Your task to perform on an android device: Open notification settings Image 0: 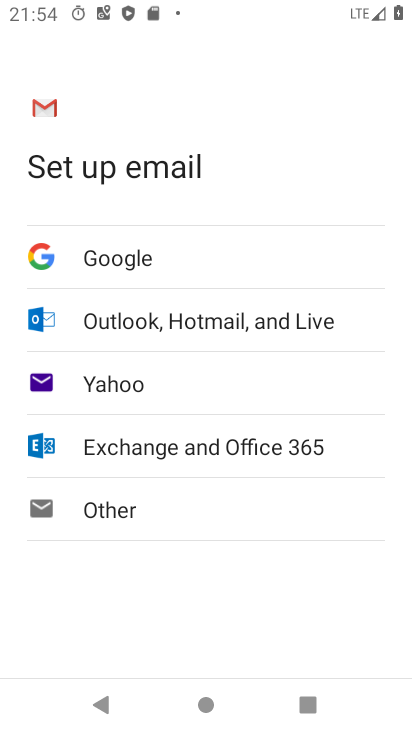
Step 0: press home button
Your task to perform on an android device: Open notification settings Image 1: 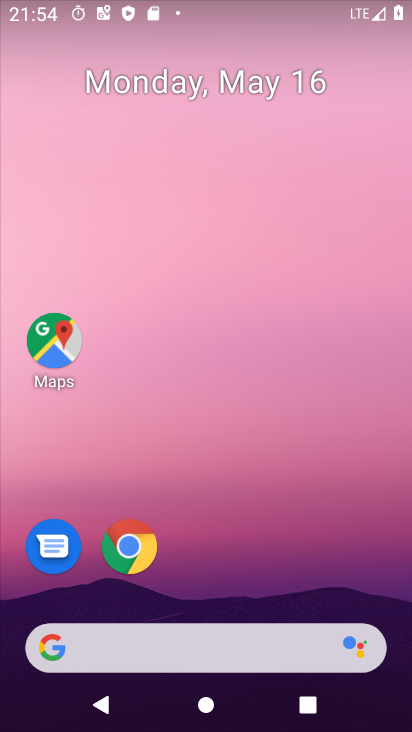
Step 1: drag from (254, 665) to (361, 161)
Your task to perform on an android device: Open notification settings Image 2: 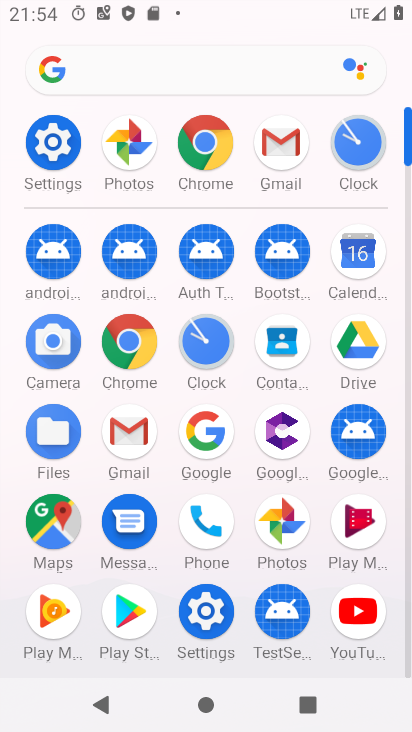
Step 2: click (193, 596)
Your task to perform on an android device: Open notification settings Image 3: 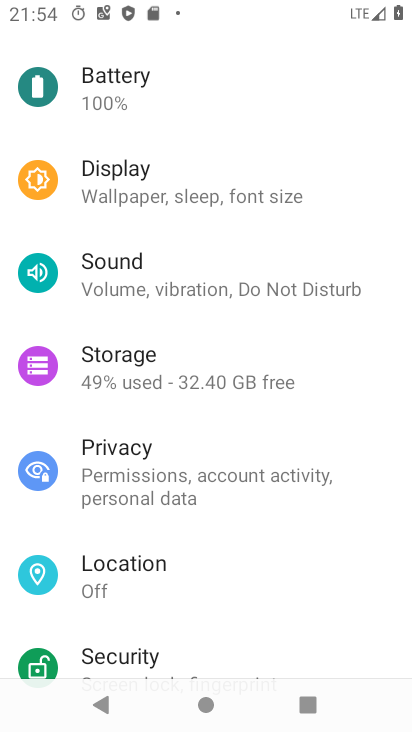
Step 3: drag from (159, 524) to (236, 266)
Your task to perform on an android device: Open notification settings Image 4: 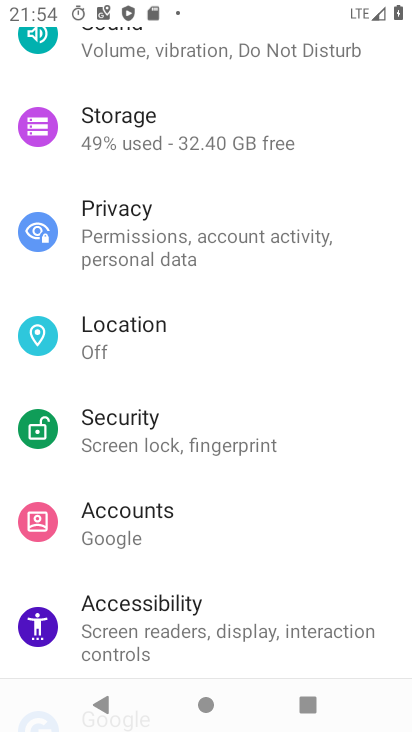
Step 4: drag from (178, 205) to (147, 719)
Your task to perform on an android device: Open notification settings Image 5: 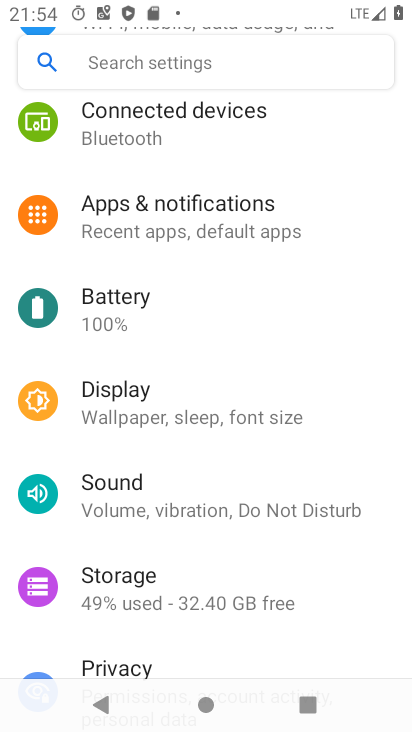
Step 5: drag from (155, 216) to (172, 551)
Your task to perform on an android device: Open notification settings Image 6: 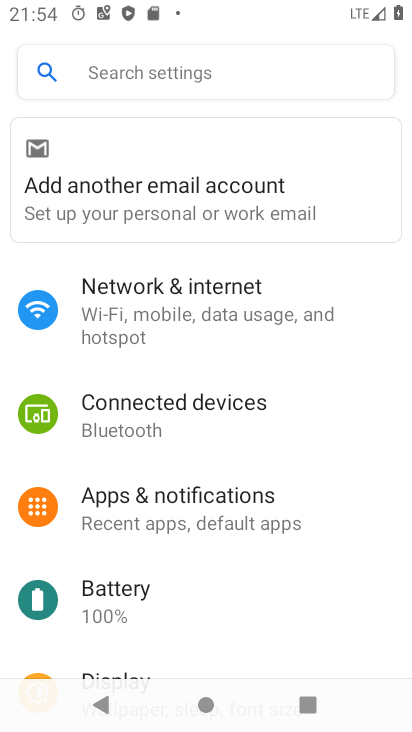
Step 6: click (120, 74)
Your task to perform on an android device: Open notification settings Image 7: 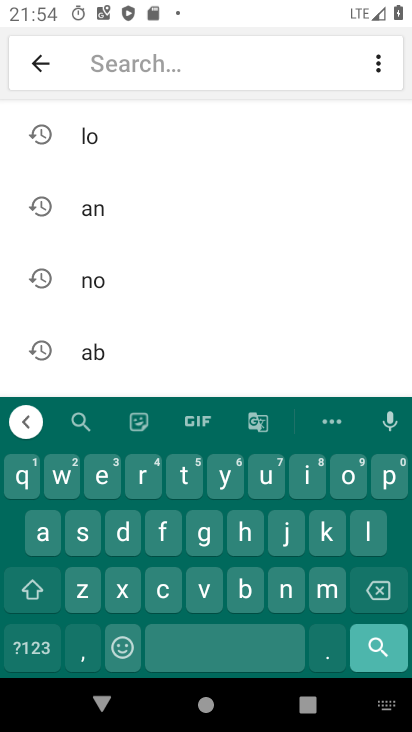
Step 7: click (140, 286)
Your task to perform on an android device: Open notification settings Image 8: 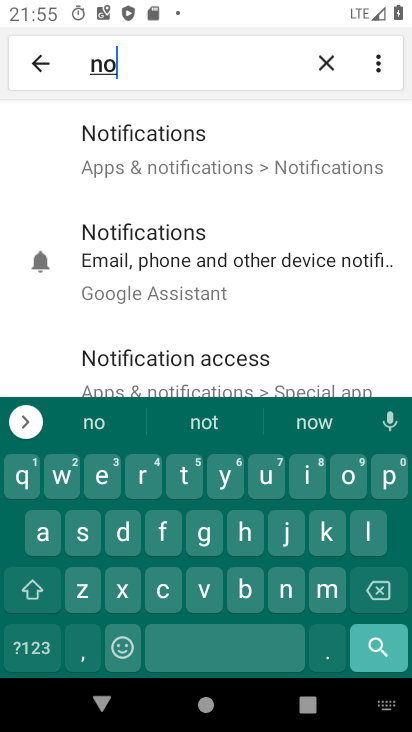
Step 8: click (138, 162)
Your task to perform on an android device: Open notification settings Image 9: 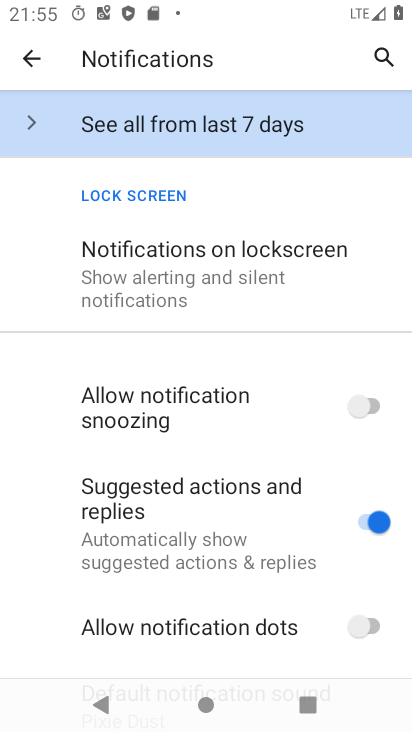
Step 9: click (177, 263)
Your task to perform on an android device: Open notification settings Image 10: 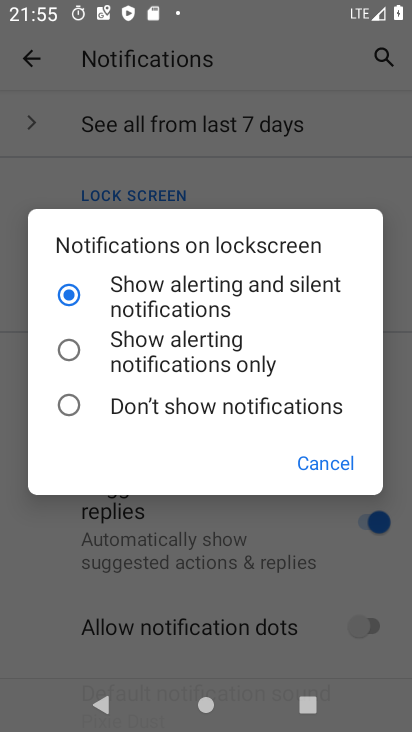
Step 10: task complete